Your task to perform on an android device: visit the assistant section in the google photos Image 0: 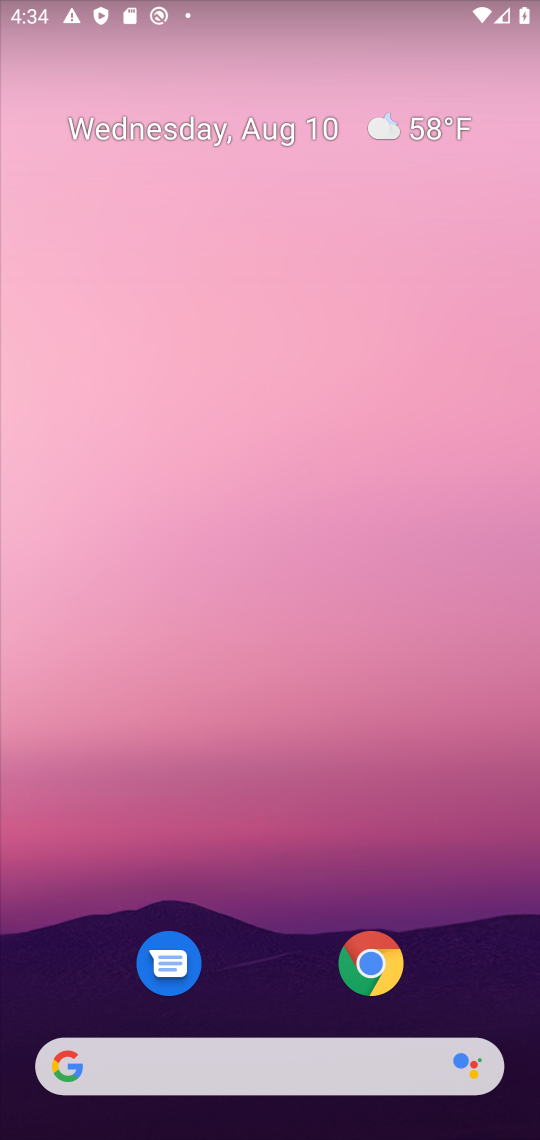
Step 0: drag from (309, 938) to (380, 67)
Your task to perform on an android device: visit the assistant section in the google photos Image 1: 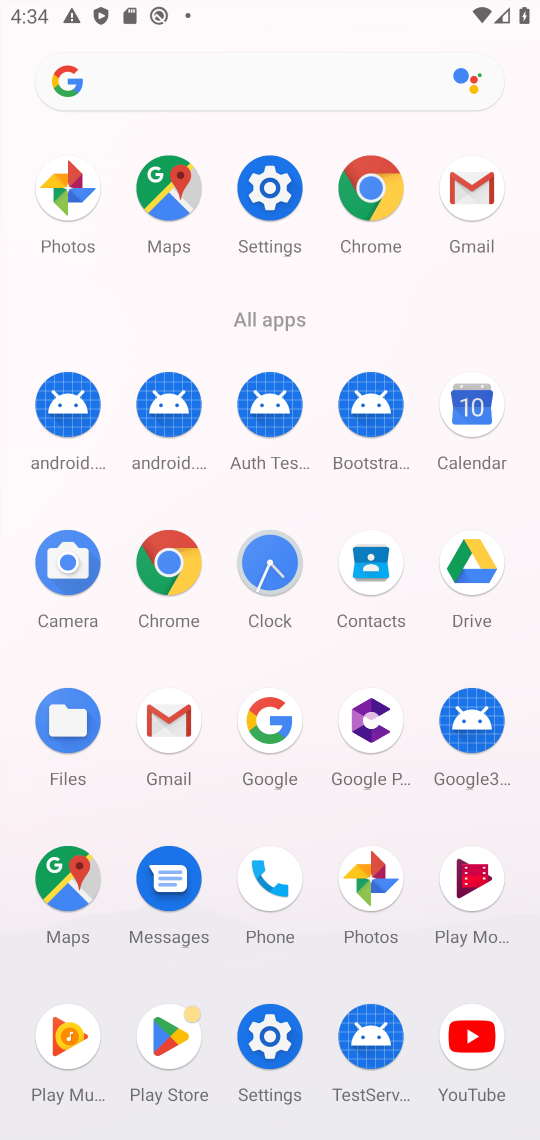
Step 1: click (369, 883)
Your task to perform on an android device: visit the assistant section in the google photos Image 2: 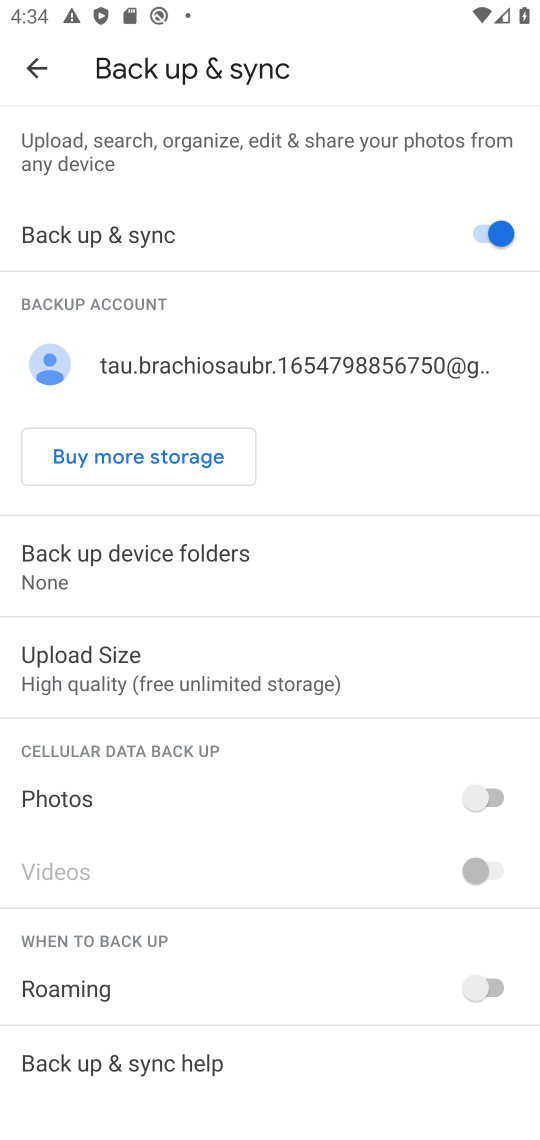
Step 2: click (37, 73)
Your task to perform on an android device: visit the assistant section in the google photos Image 3: 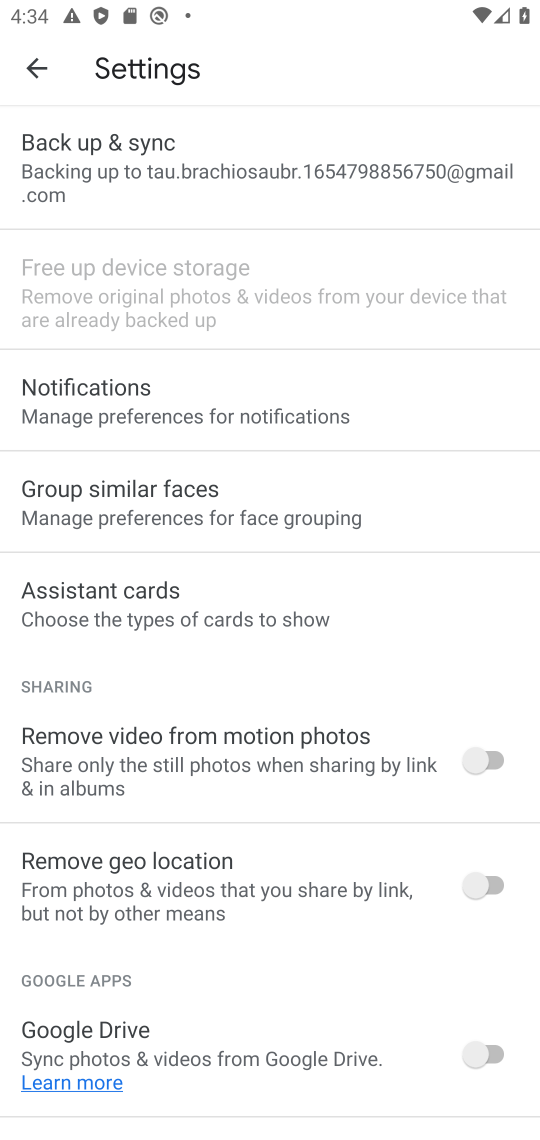
Step 3: click (34, 77)
Your task to perform on an android device: visit the assistant section in the google photos Image 4: 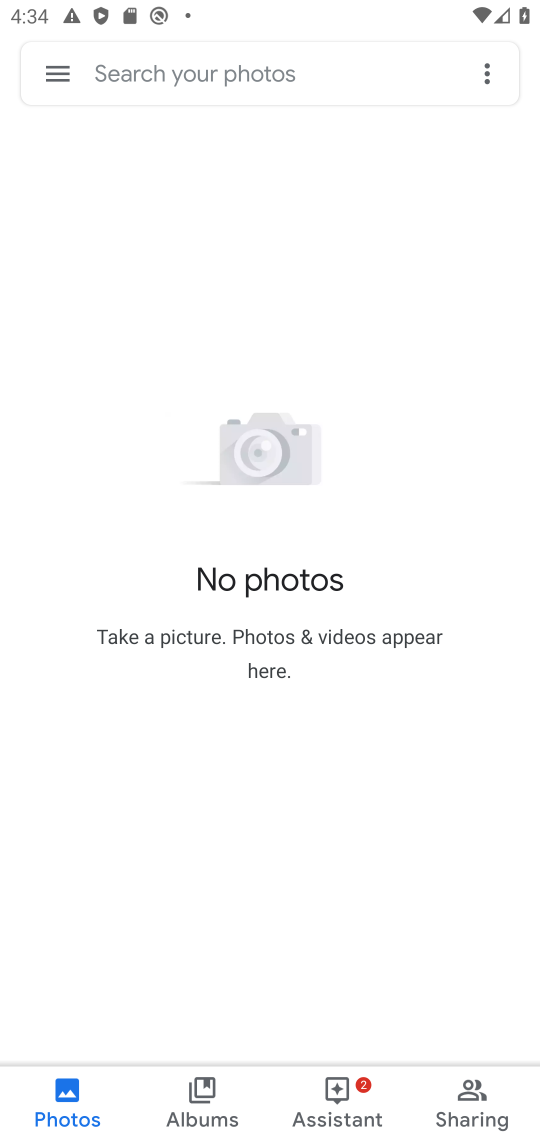
Step 4: click (337, 1107)
Your task to perform on an android device: visit the assistant section in the google photos Image 5: 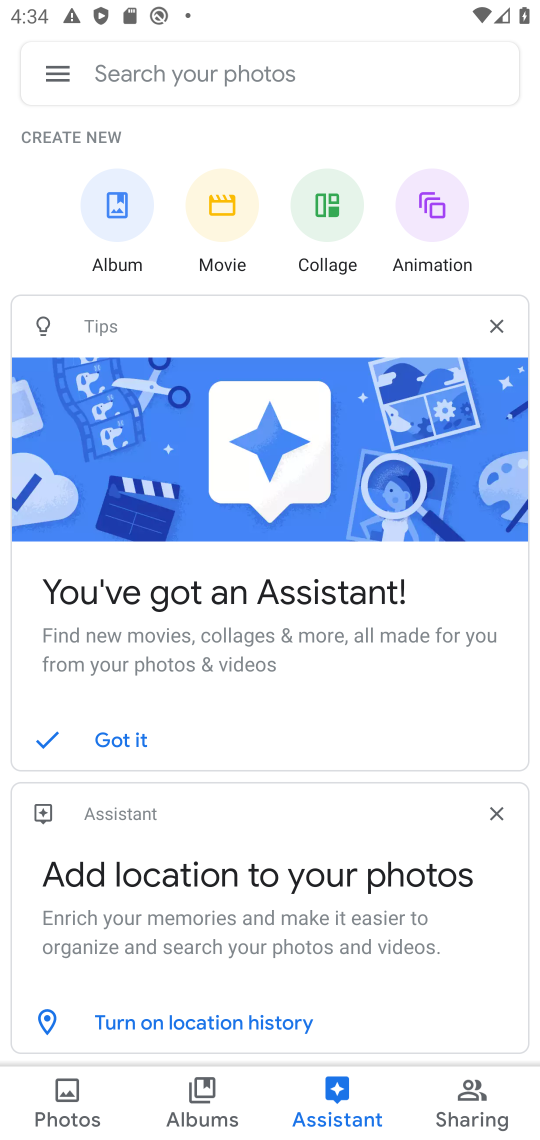
Step 5: task complete